Your task to perform on an android device: change the upload size in google photos Image 0: 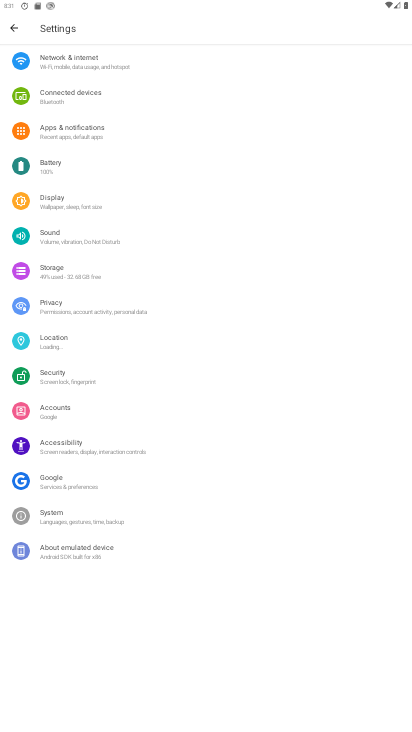
Step 0: press home button
Your task to perform on an android device: change the upload size in google photos Image 1: 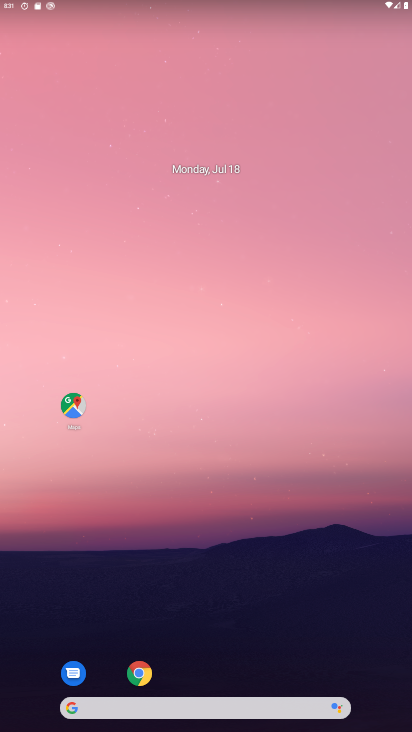
Step 1: drag from (185, 589) to (175, 274)
Your task to perform on an android device: change the upload size in google photos Image 2: 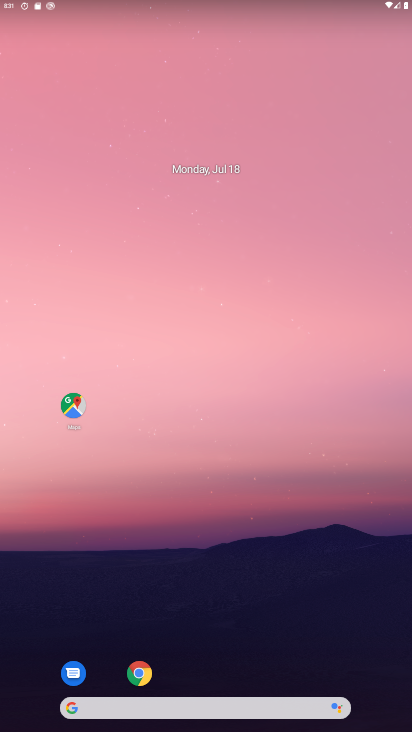
Step 2: drag from (175, 586) to (171, 213)
Your task to perform on an android device: change the upload size in google photos Image 3: 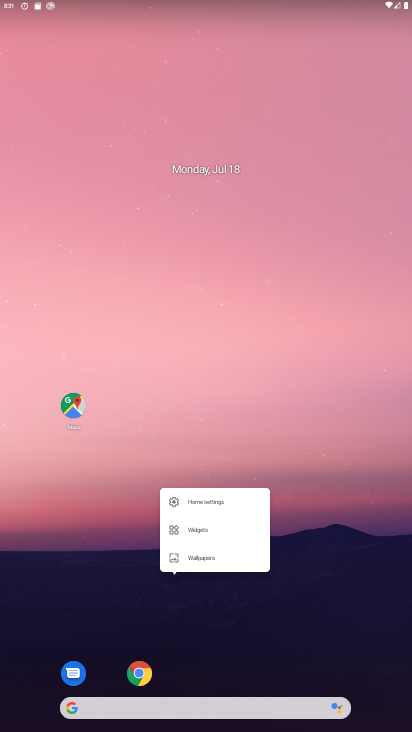
Step 3: click (213, 631)
Your task to perform on an android device: change the upload size in google photos Image 4: 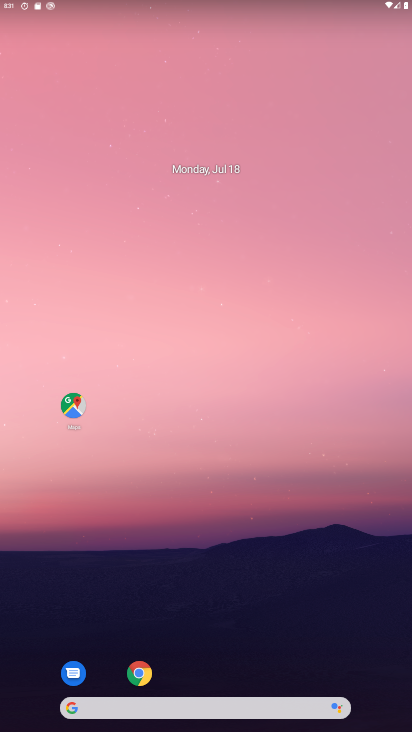
Step 4: drag from (197, 633) to (165, 272)
Your task to perform on an android device: change the upload size in google photos Image 5: 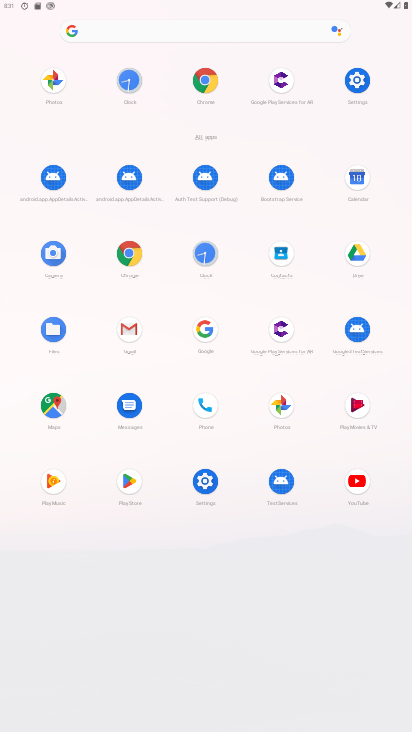
Step 5: click (277, 408)
Your task to perform on an android device: change the upload size in google photos Image 6: 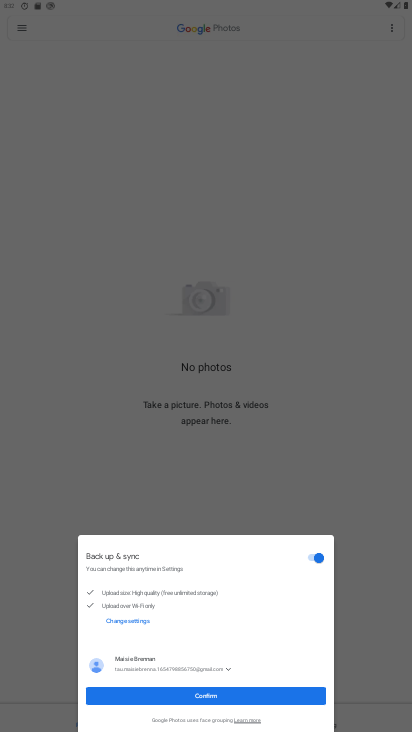
Step 6: click (207, 697)
Your task to perform on an android device: change the upload size in google photos Image 7: 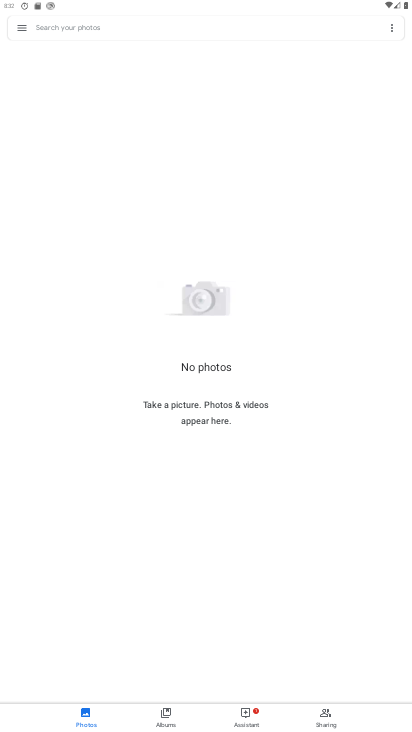
Step 7: click (19, 30)
Your task to perform on an android device: change the upload size in google photos Image 8: 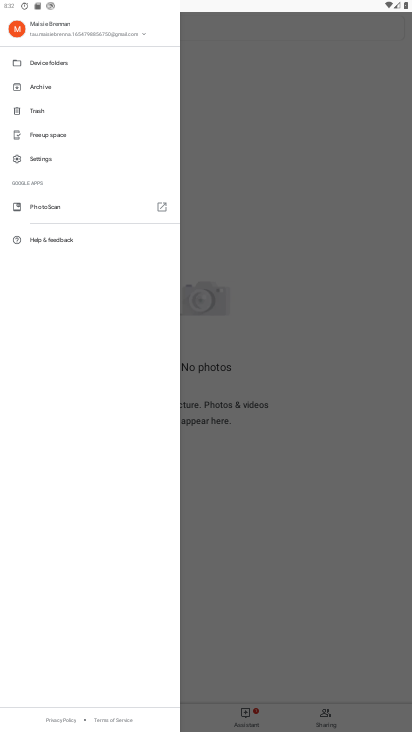
Step 8: click (49, 159)
Your task to perform on an android device: change the upload size in google photos Image 9: 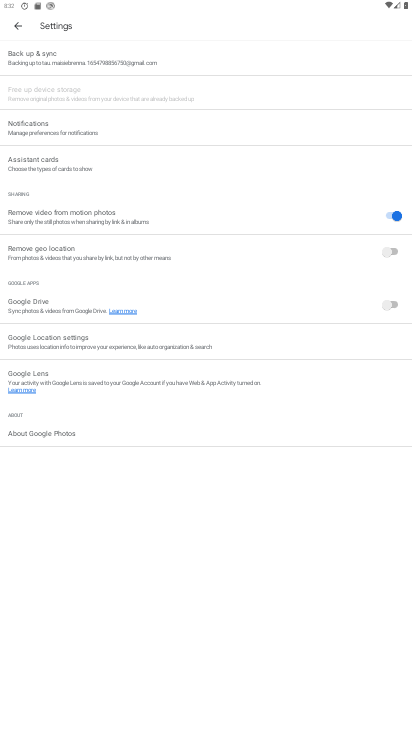
Step 9: click (67, 58)
Your task to perform on an android device: change the upload size in google photos Image 10: 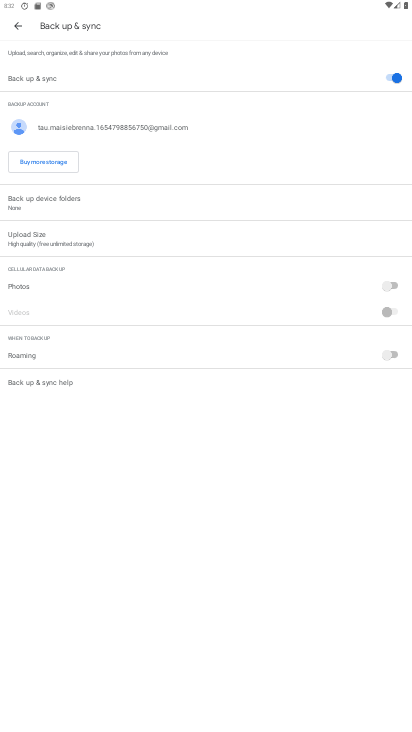
Step 10: click (74, 241)
Your task to perform on an android device: change the upload size in google photos Image 11: 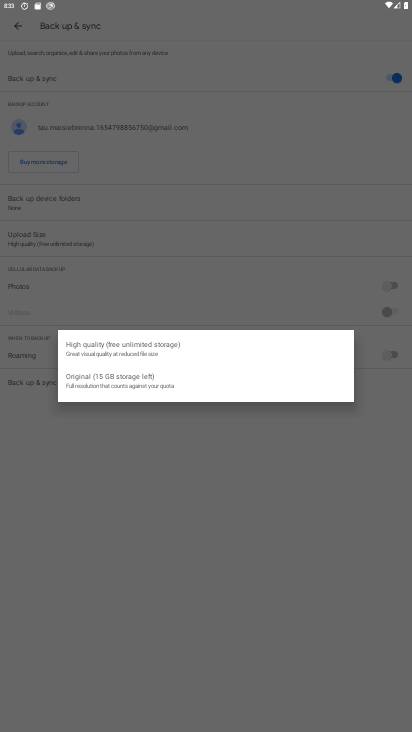
Step 11: click (115, 389)
Your task to perform on an android device: change the upload size in google photos Image 12: 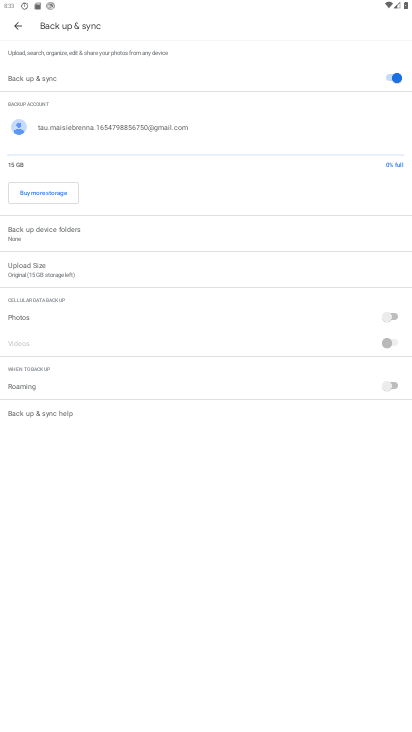
Step 12: task complete